Your task to perform on an android device: star an email in the gmail app Image 0: 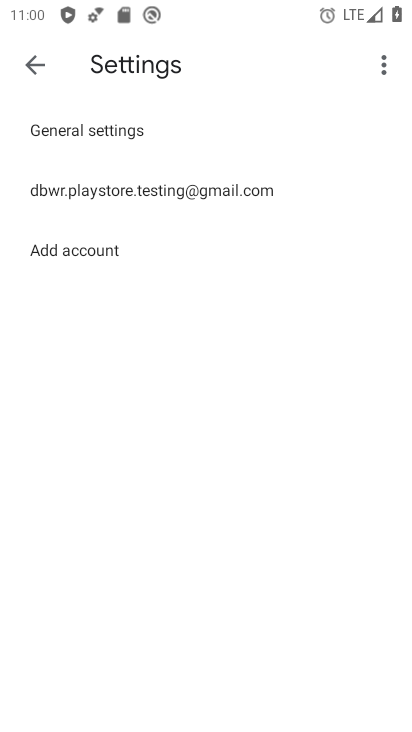
Step 0: click (364, 530)
Your task to perform on an android device: star an email in the gmail app Image 1: 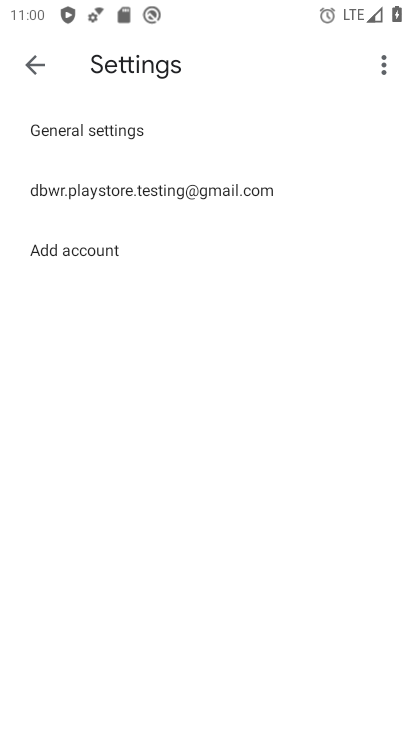
Step 1: press home button
Your task to perform on an android device: star an email in the gmail app Image 2: 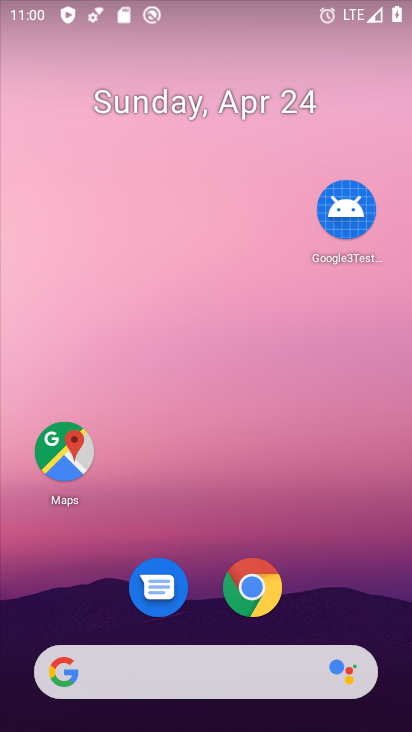
Step 2: drag from (360, 589) to (276, 137)
Your task to perform on an android device: star an email in the gmail app Image 3: 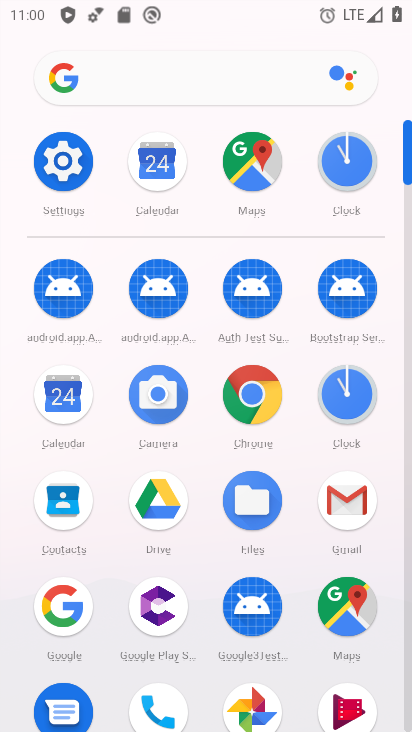
Step 3: click (339, 502)
Your task to perform on an android device: star an email in the gmail app Image 4: 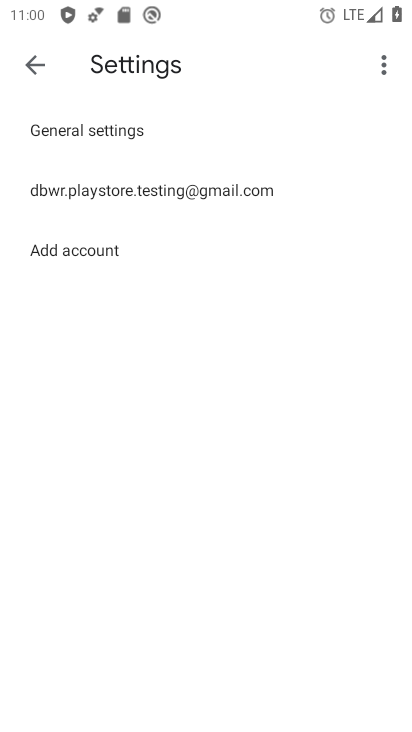
Step 4: click (136, 188)
Your task to perform on an android device: star an email in the gmail app Image 5: 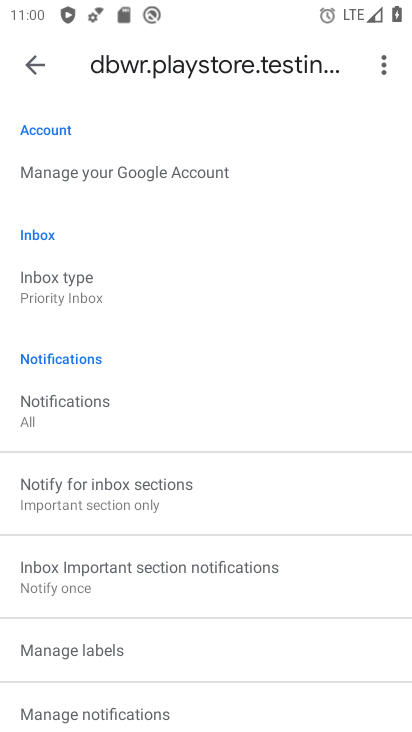
Step 5: click (36, 67)
Your task to perform on an android device: star an email in the gmail app Image 6: 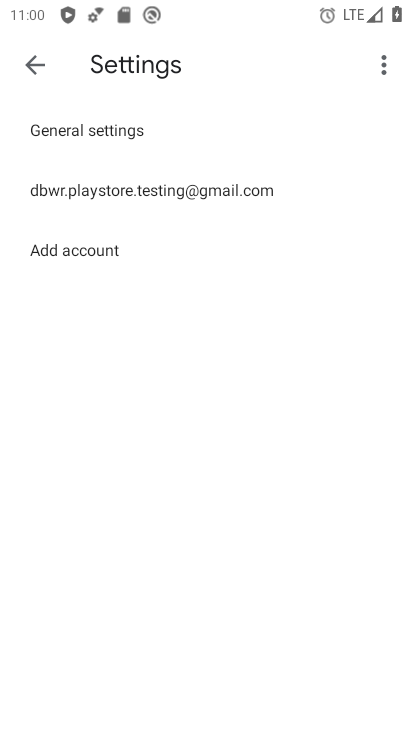
Step 6: click (33, 66)
Your task to perform on an android device: star an email in the gmail app Image 7: 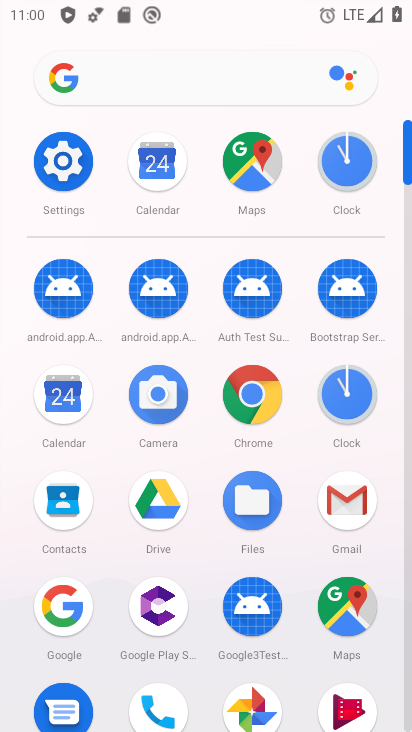
Step 7: click (335, 521)
Your task to perform on an android device: star an email in the gmail app Image 8: 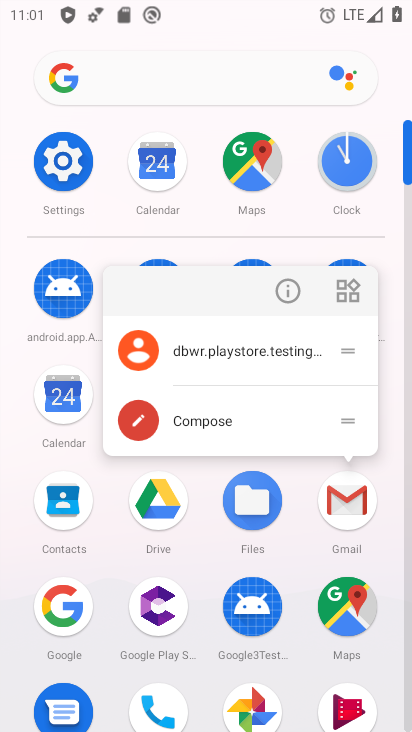
Step 8: click (334, 506)
Your task to perform on an android device: star an email in the gmail app Image 9: 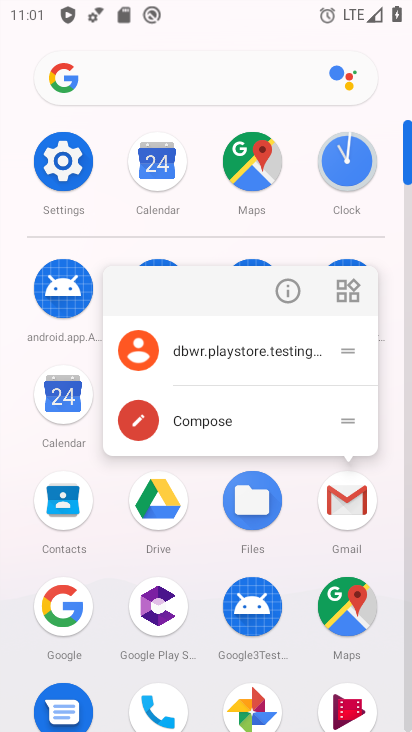
Step 9: click (334, 504)
Your task to perform on an android device: star an email in the gmail app Image 10: 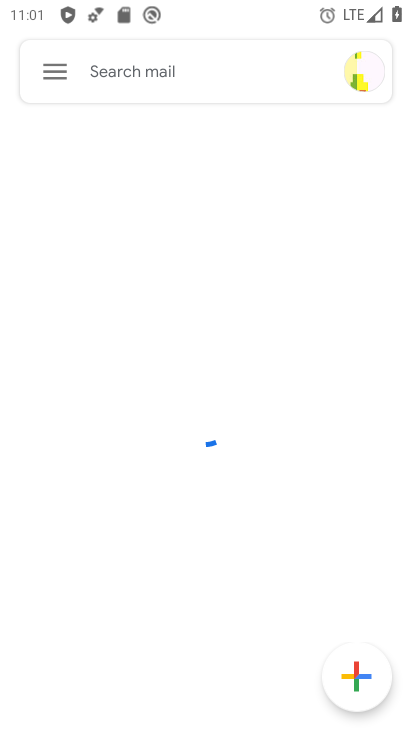
Step 10: click (53, 77)
Your task to perform on an android device: star an email in the gmail app Image 11: 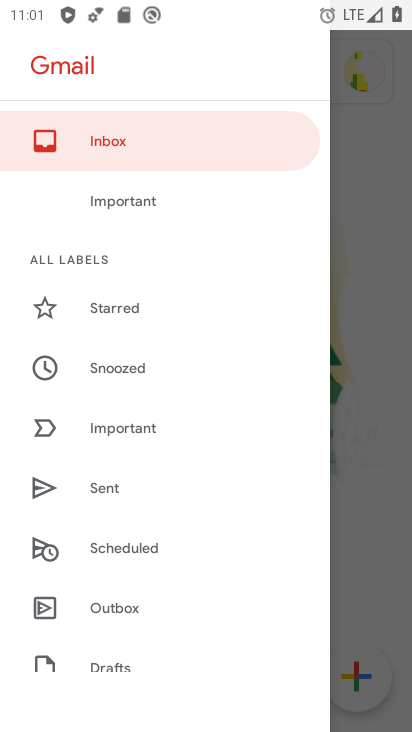
Step 11: drag from (159, 606) to (167, 314)
Your task to perform on an android device: star an email in the gmail app Image 12: 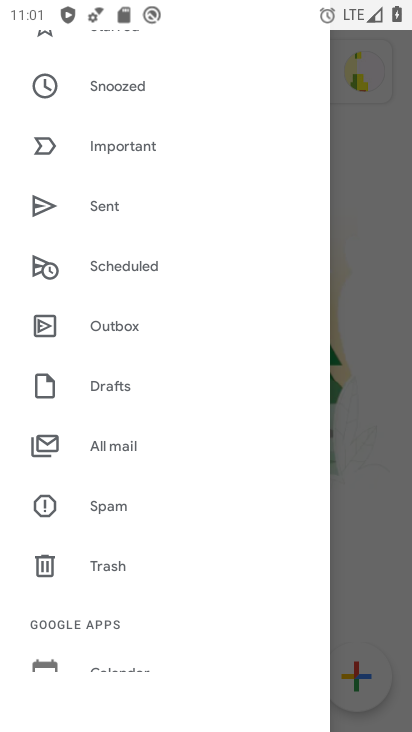
Step 12: click (115, 443)
Your task to perform on an android device: star an email in the gmail app Image 13: 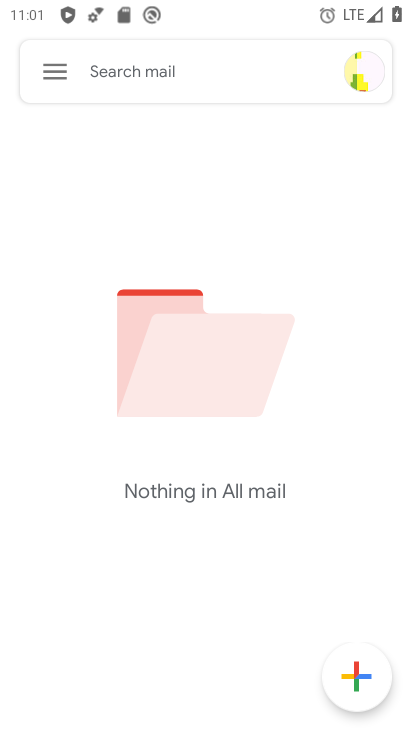
Step 13: task complete